Your task to perform on an android device: View the shopping cart on walmart. Search for razer blade on walmart, select the first entry, add it to the cart, then select checkout. Image 0: 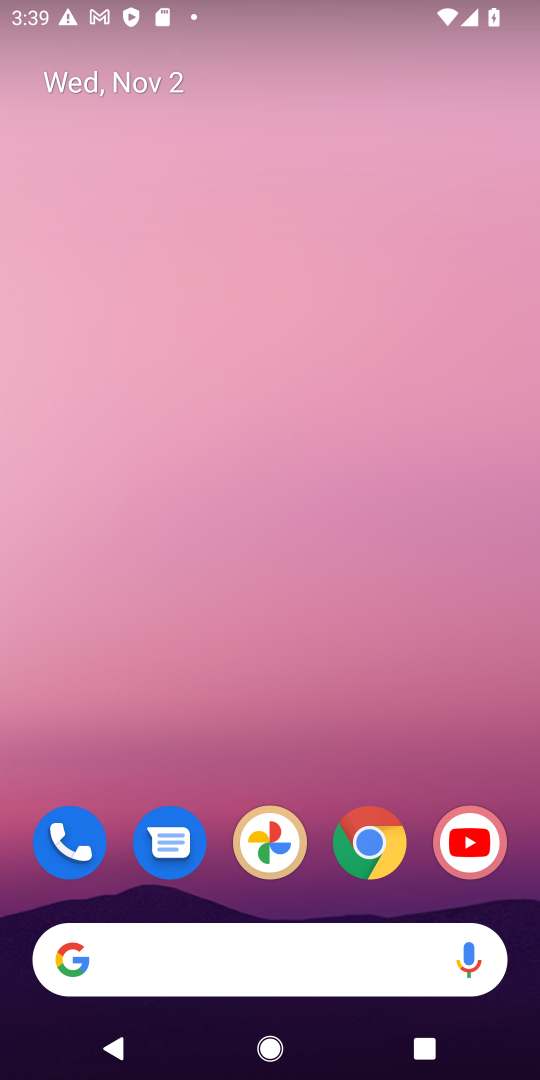
Step 0: click (378, 865)
Your task to perform on an android device: View the shopping cart on walmart. Search for razer blade on walmart, select the first entry, add it to the cart, then select checkout. Image 1: 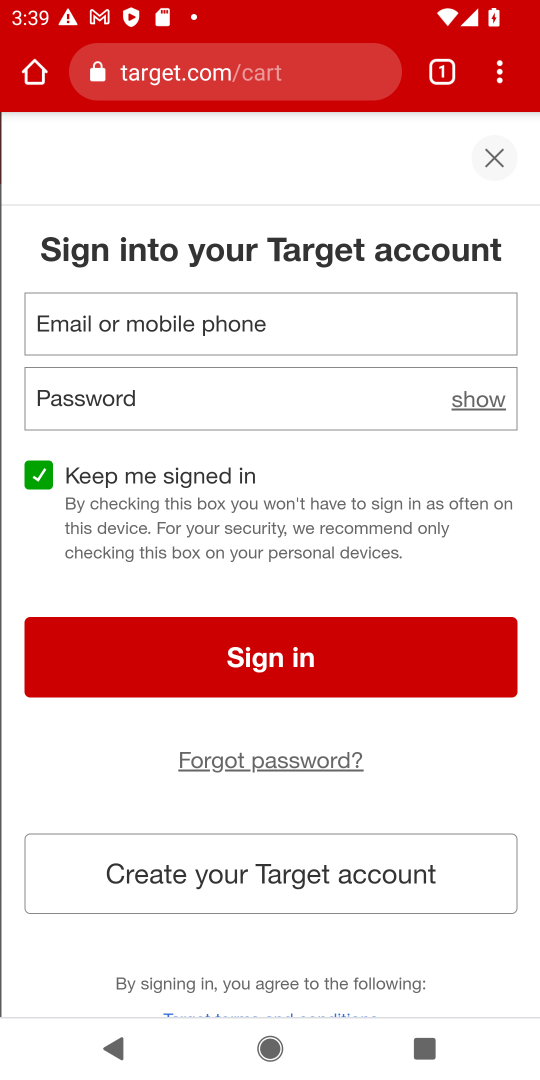
Step 1: click (253, 70)
Your task to perform on an android device: View the shopping cart on walmart. Search for razer blade on walmart, select the first entry, add it to the cart, then select checkout. Image 2: 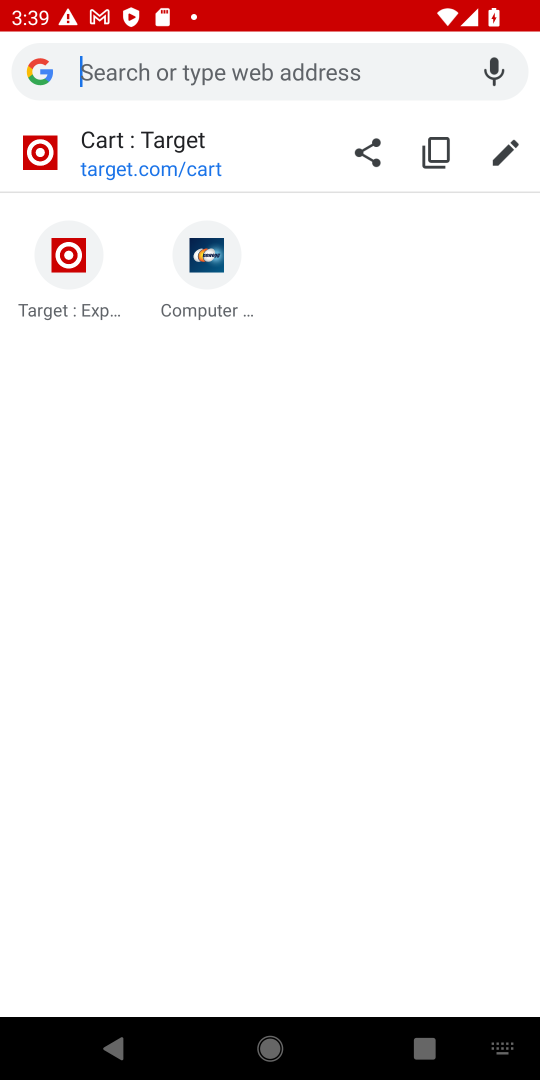
Step 2: type "walmart"
Your task to perform on an android device: View the shopping cart on walmart. Search for razer blade on walmart, select the first entry, add it to the cart, then select checkout. Image 3: 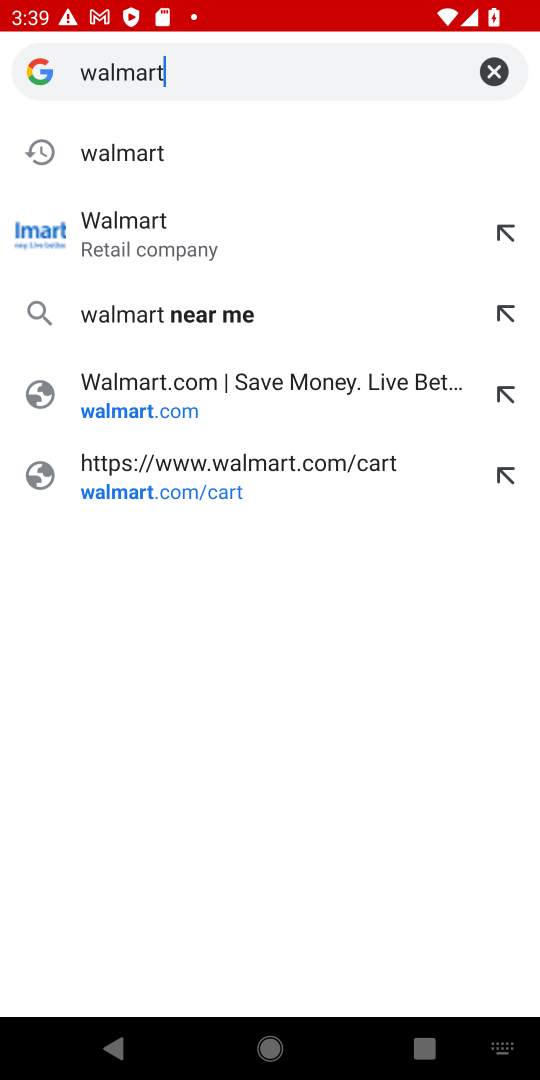
Step 3: click (137, 154)
Your task to perform on an android device: View the shopping cart on walmart. Search for razer blade on walmart, select the first entry, add it to the cart, then select checkout. Image 4: 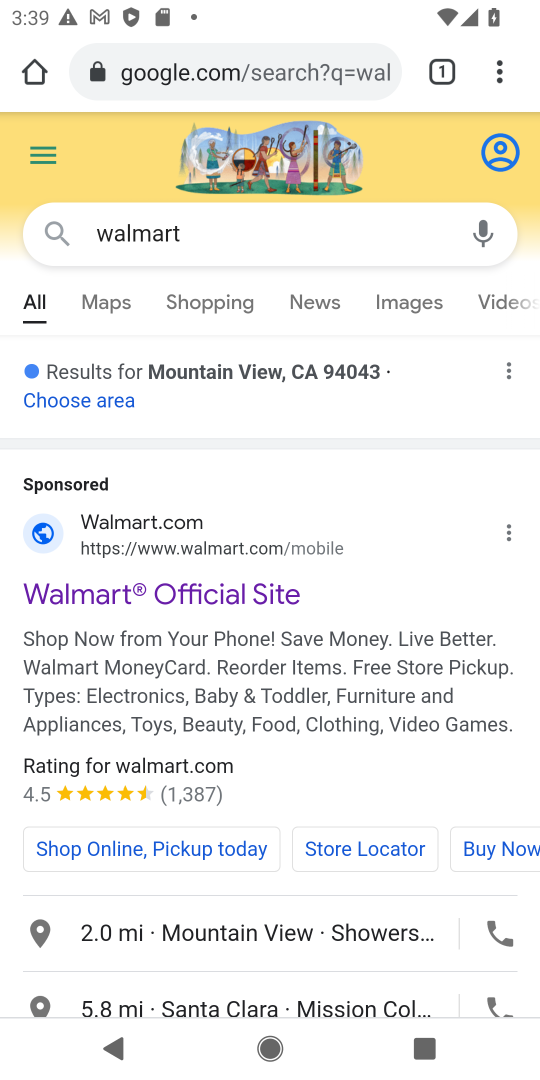
Step 4: drag from (305, 778) to (262, 341)
Your task to perform on an android device: View the shopping cart on walmart. Search for razer blade on walmart, select the first entry, add it to the cart, then select checkout. Image 5: 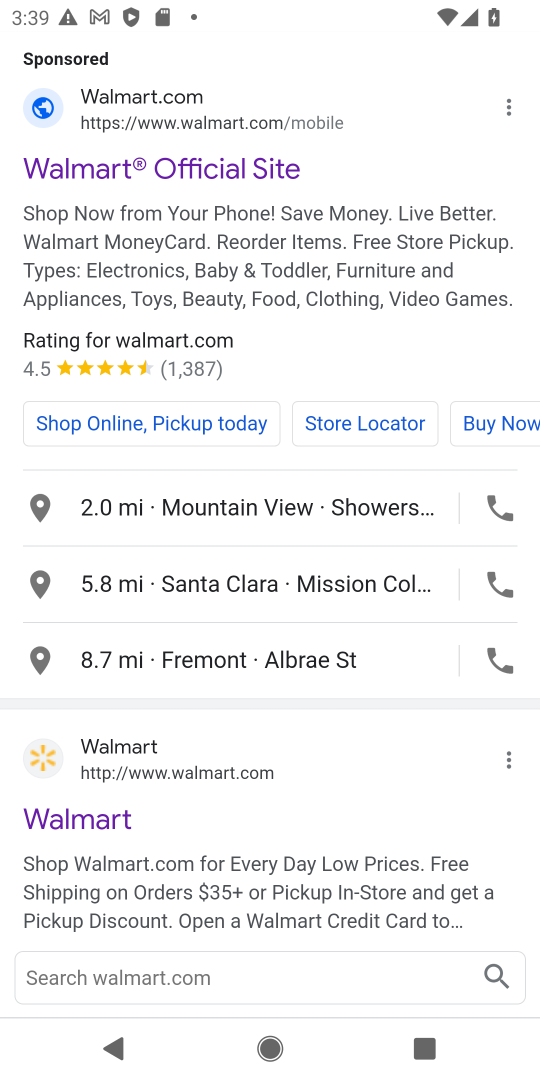
Step 5: click (61, 813)
Your task to perform on an android device: View the shopping cart on walmart. Search for razer blade on walmart, select the first entry, add it to the cart, then select checkout. Image 6: 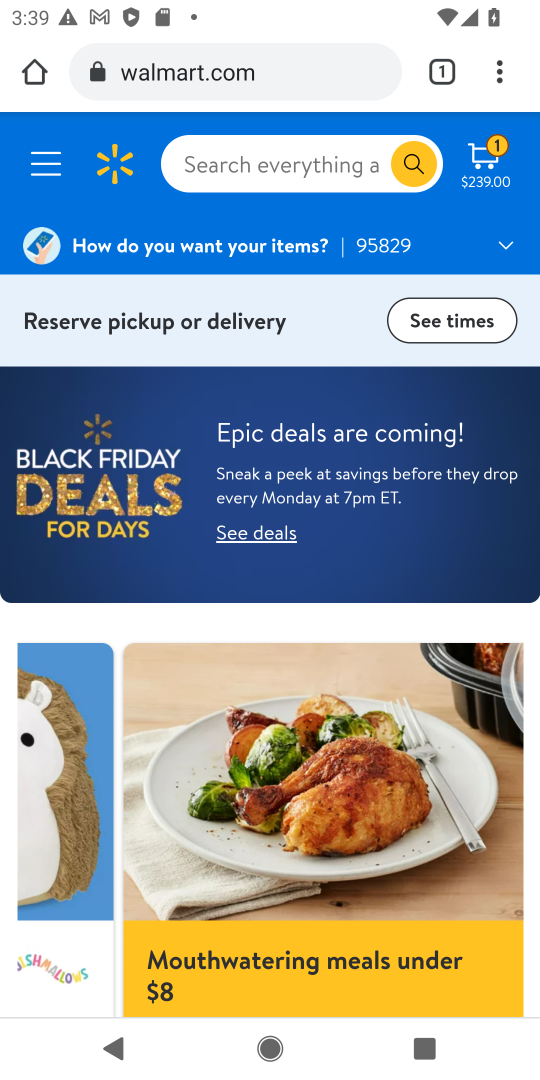
Step 6: click (491, 150)
Your task to perform on an android device: View the shopping cart on walmart. Search for razer blade on walmart, select the first entry, add it to the cart, then select checkout. Image 7: 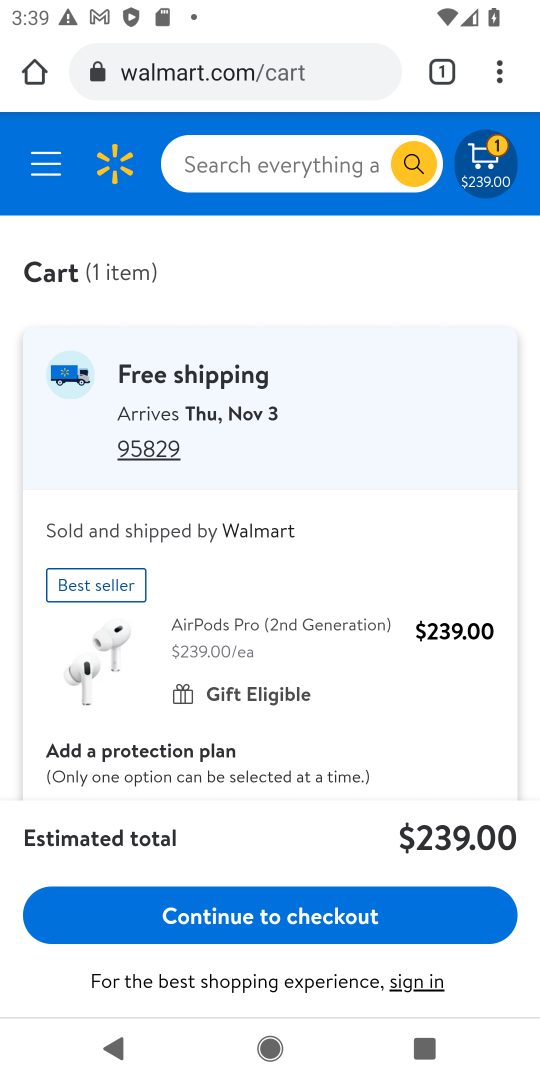
Step 7: click (329, 163)
Your task to perform on an android device: View the shopping cart on walmart. Search for razer blade on walmart, select the first entry, add it to the cart, then select checkout. Image 8: 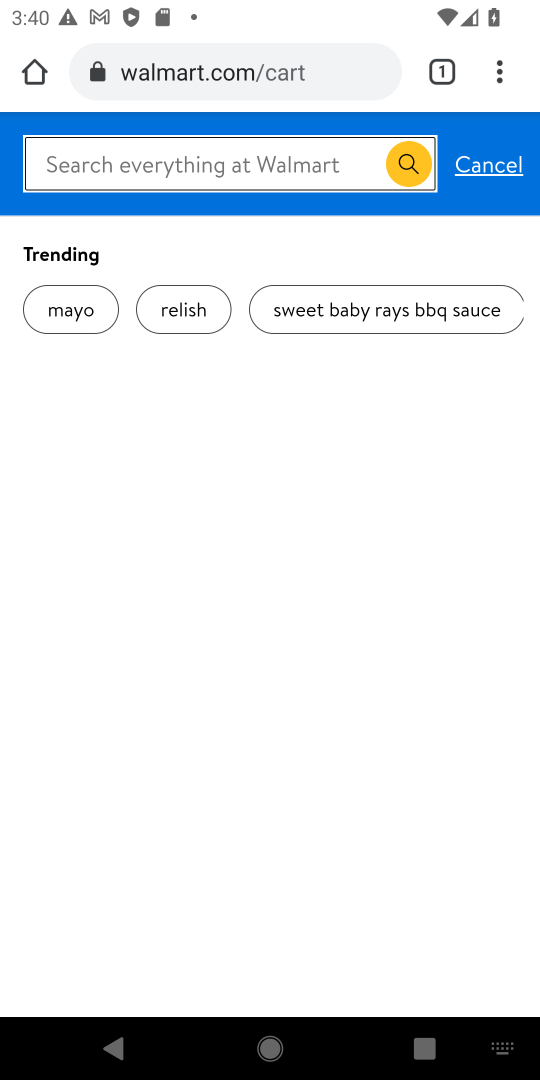
Step 8: type "razer blade"
Your task to perform on an android device: View the shopping cart on walmart. Search for razer blade on walmart, select the first entry, add it to the cart, then select checkout. Image 9: 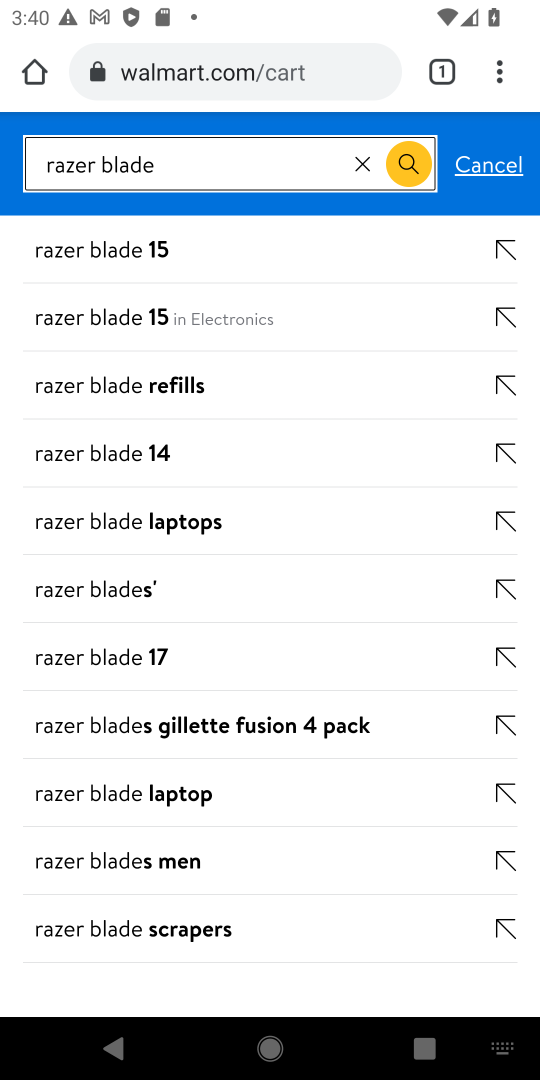
Step 9: press enter
Your task to perform on an android device: View the shopping cart on walmart. Search for razer blade on walmart, select the first entry, add it to the cart, then select checkout. Image 10: 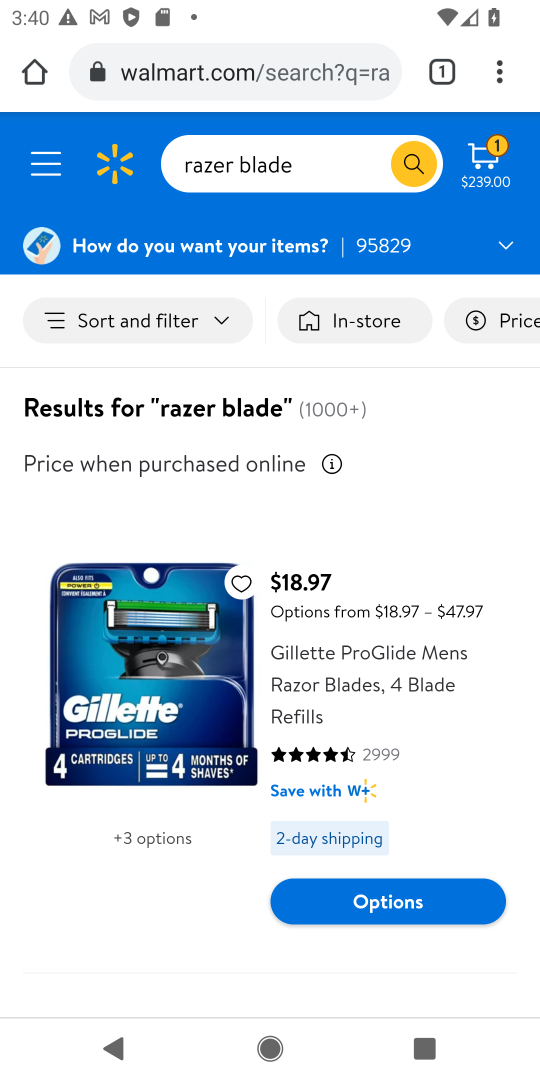
Step 10: click (138, 654)
Your task to perform on an android device: View the shopping cart on walmart. Search for razer blade on walmart, select the first entry, add it to the cart, then select checkout. Image 11: 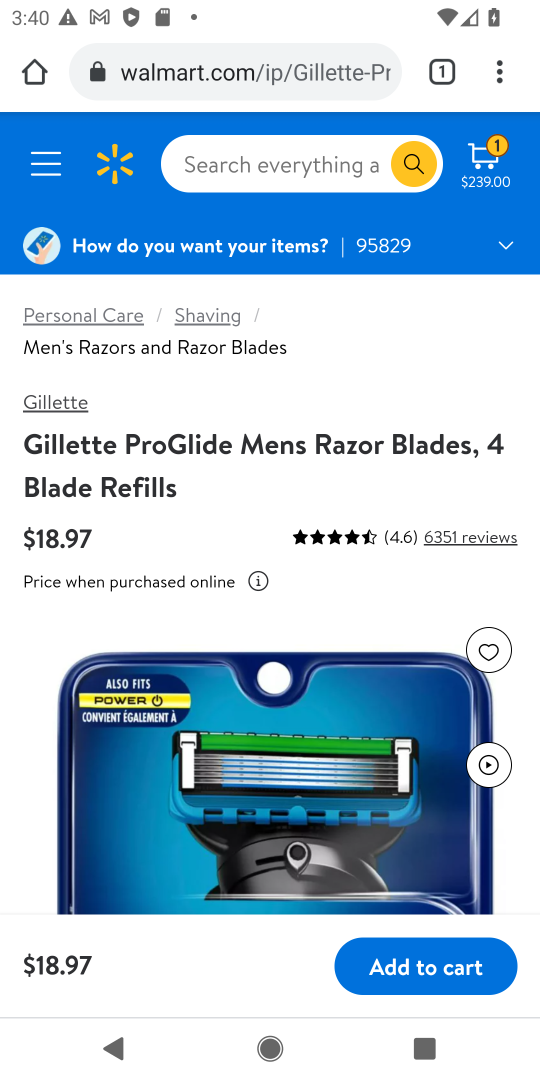
Step 11: click (459, 971)
Your task to perform on an android device: View the shopping cart on walmart. Search for razer blade on walmart, select the first entry, add it to the cart, then select checkout. Image 12: 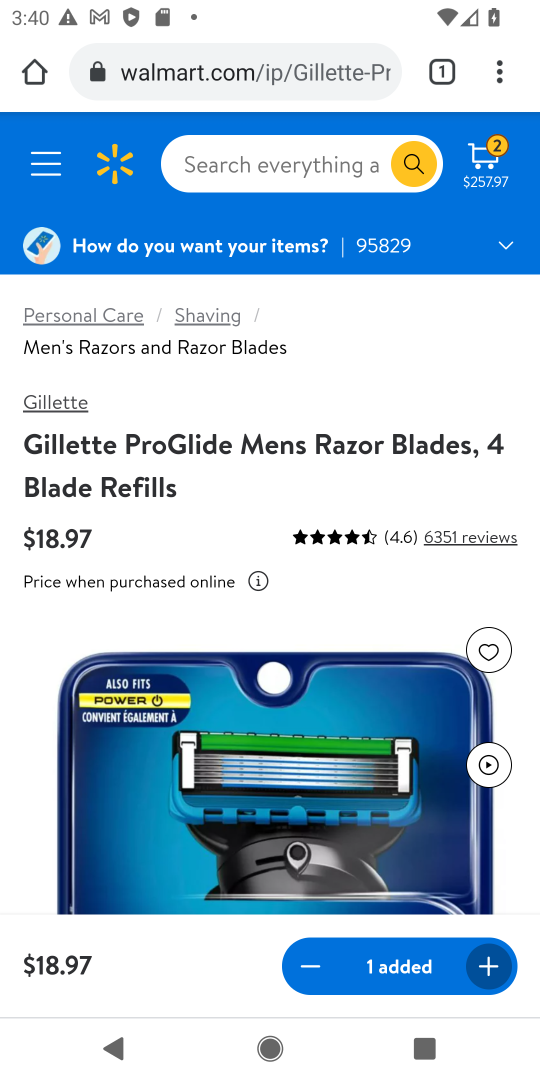
Step 12: click (487, 160)
Your task to perform on an android device: View the shopping cart on walmart. Search for razer blade on walmart, select the first entry, add it to the cart, then select checkout. Image 13: 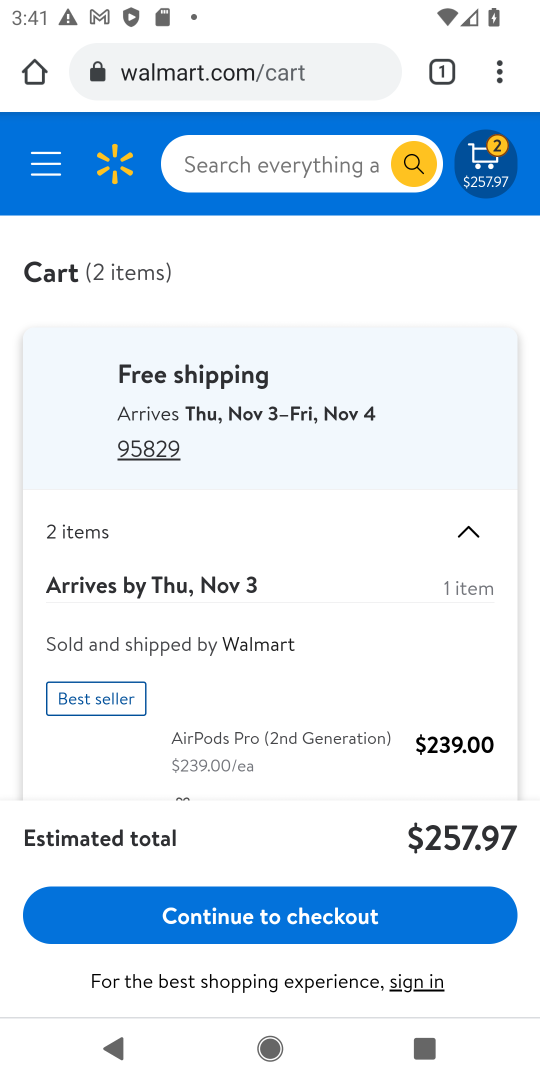
Step 13: click (319, 917)
Your task to perform on an android device: View the shopping cart on walmart. Search for razer blade on walmart, select the first entry, add it to the cart, then select checkout. Image 14: 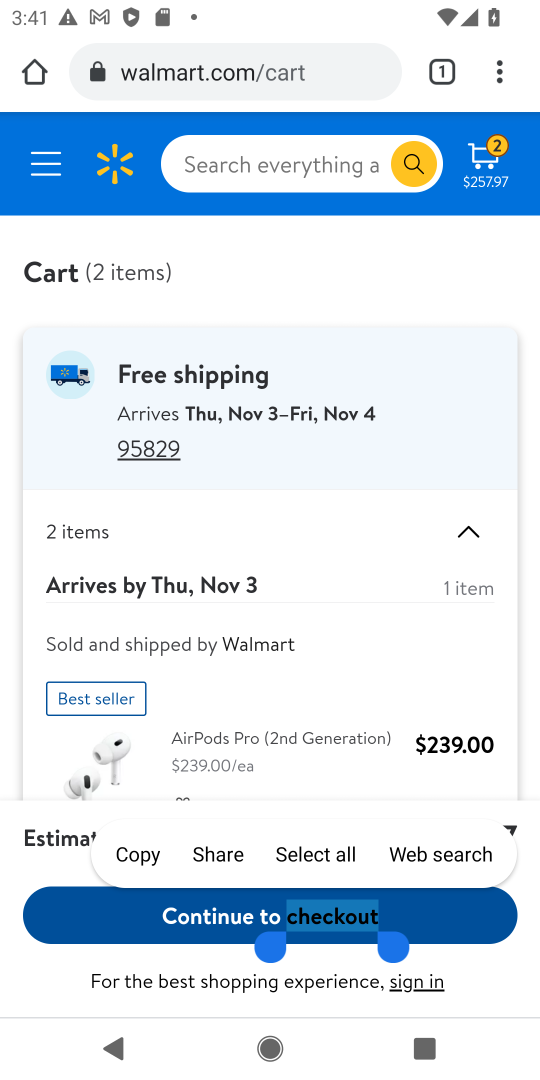
Step 14: click (200, 928)
Your task to perform on an android device: View the shopping cart on walmart. Search for razer blade on walmart, select the first entry, add it to the cart, then select checkout. Image 15: 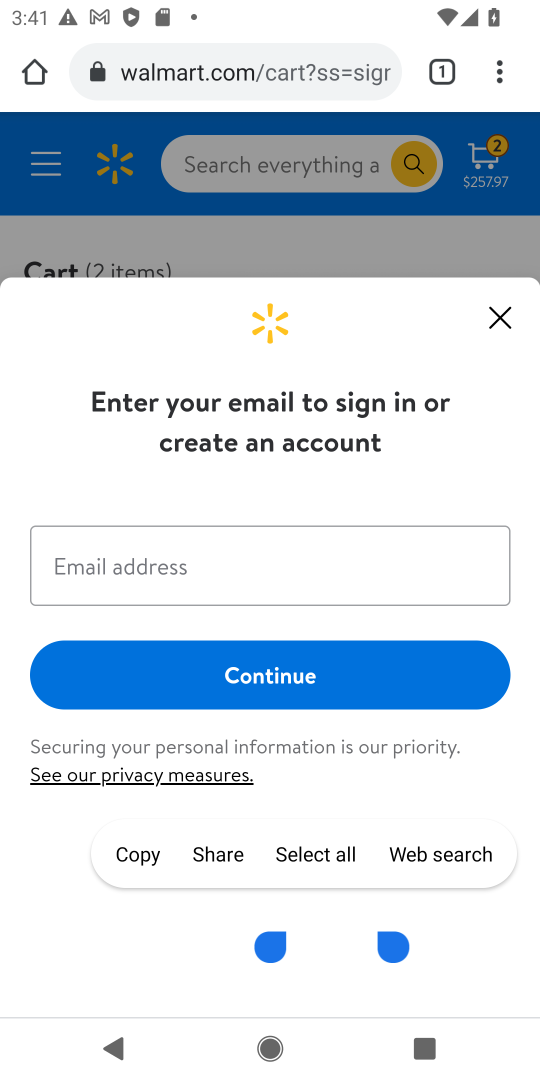
Step 15: task complete